Your task to perform on an android device: turn on priority inbox in the gmail app Image 0: 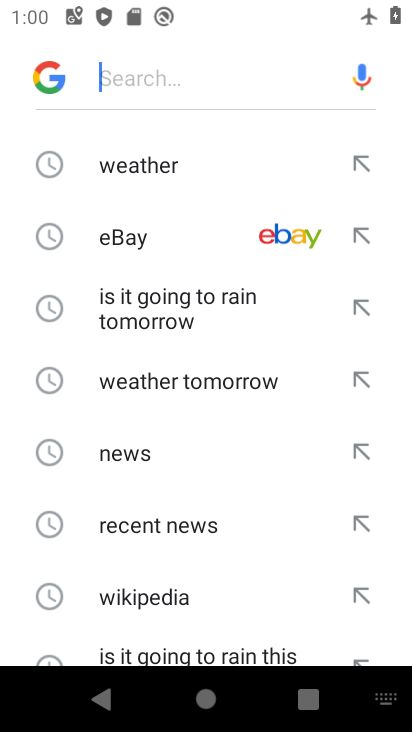
Step 0: press home button
Your task to perform on an android device: turn on priority inbox in the gmail app Image 1: 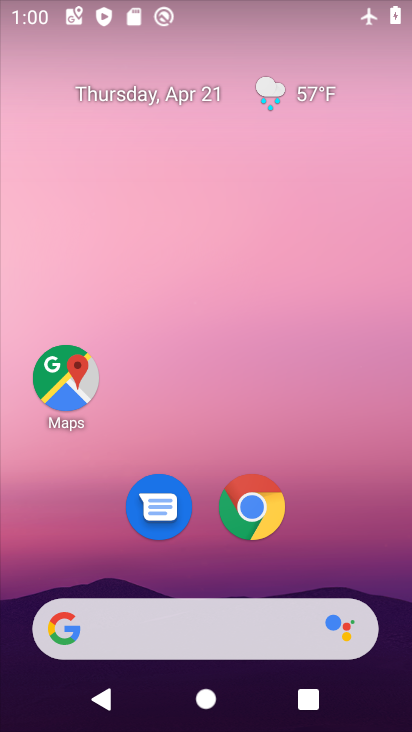
Step 1: drag from (216, 449) to (258, 32)
Your task to perform on an android device: turn on priority inbox in the gmail app Image 2: 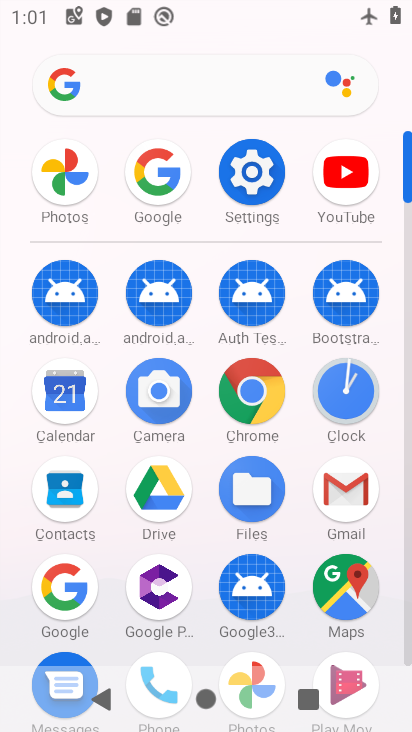
Step 2: click (344, 489)
Your task to perform on an android device: turn on priority inbox in the gmail app Image 3: 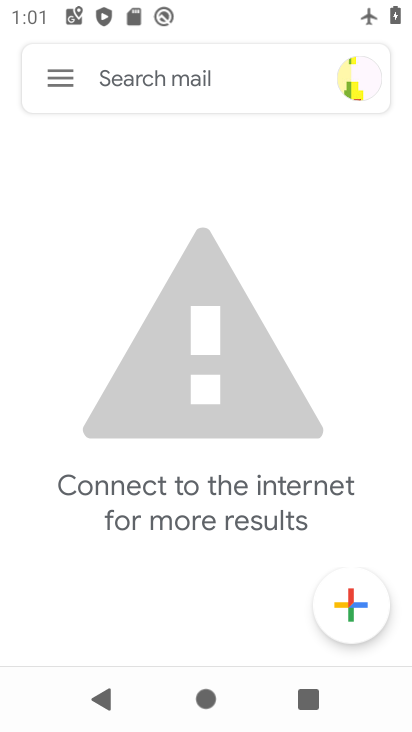
Step 3: click (62, 82)
Your task to perform on an android device: turn on priority inbox in the gmail app Image 4: 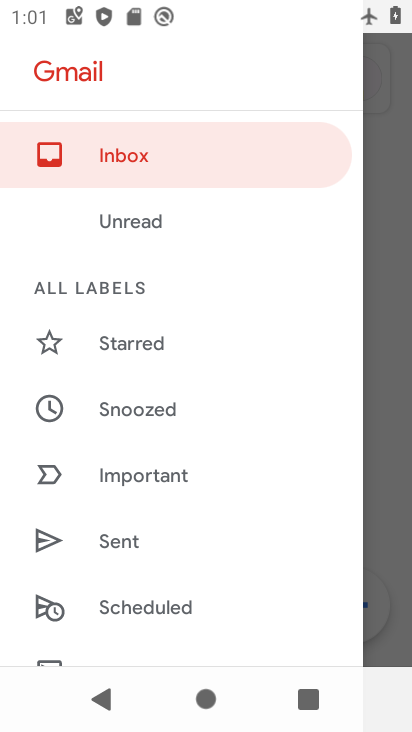
Step 4: drag from (171, 535) to (199, 344)
Your task to perform on an android device: turn on priority inbox in the gmail app Image 5: 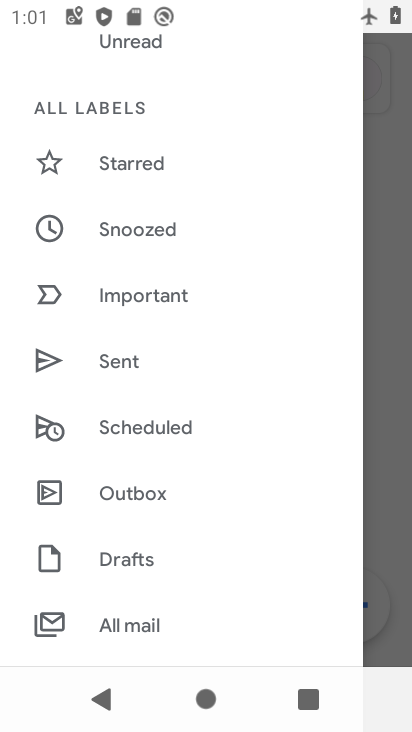
Step 5: drag from (162, 457) to (193, 380)
Your task to perform on an android device: turn on priority inbox in the gmail app Image 6: 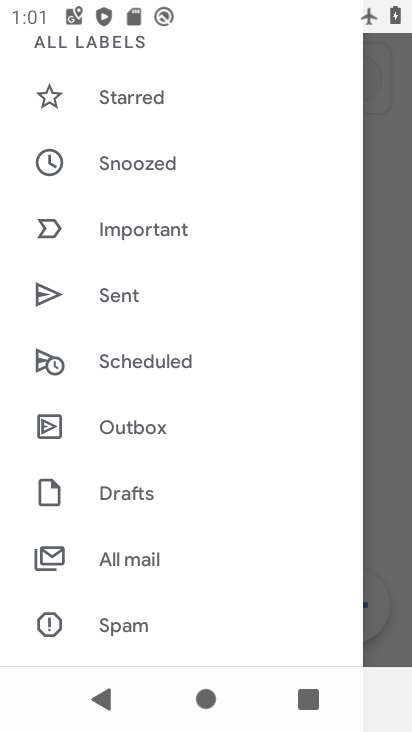
Step 6: drag from (166, 468) to (184, 379)
Your task to perform on an android device: turn on priority inbox in the gmail app Image 7: 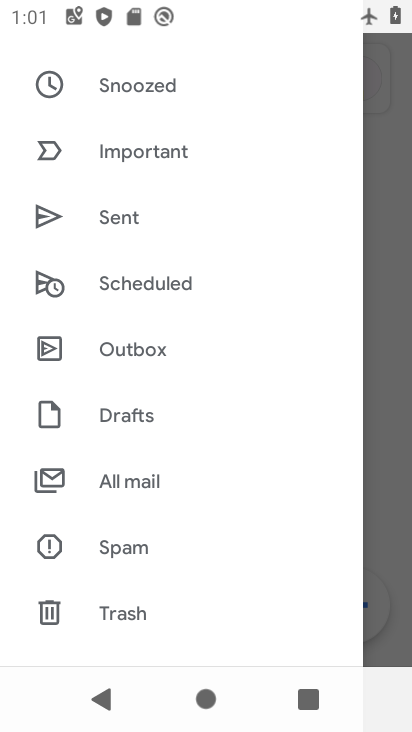
Step 7: drag from (177, 507) to (191, 406)
Your task to perform on an android device: turn on priority inbox in the gmail app Image 8: 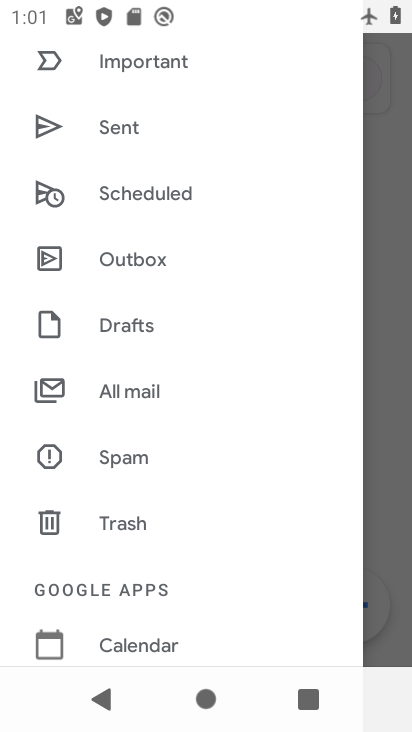
Step 8: drag from (156, 489) to (182, 401)
Your task to perform on an android device: turn on priority inbox in the gmail app Image 9: 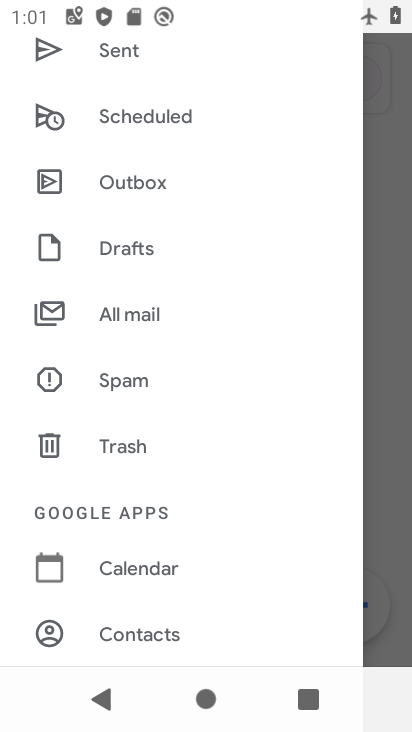
Step 9: drag from (170, 497) to (194, 418)
Your task to perform on an android device: turn on priority inbox in the gmail app Image 10: 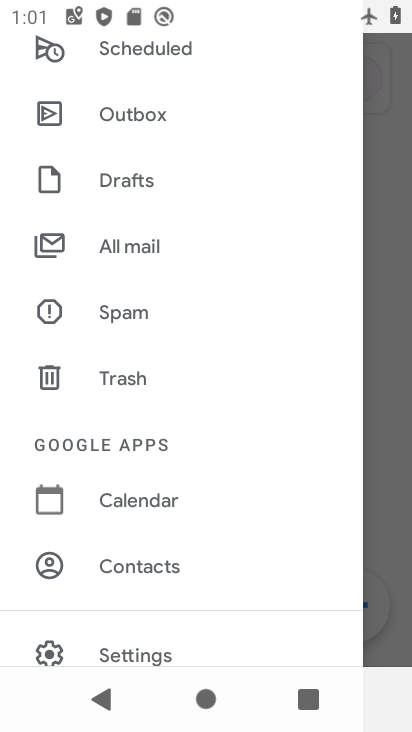
Step 10: drag from (195, 523) to (234, 415)
Your task to perform on an android device: turn on priority inbox in the gmail app Image 11: 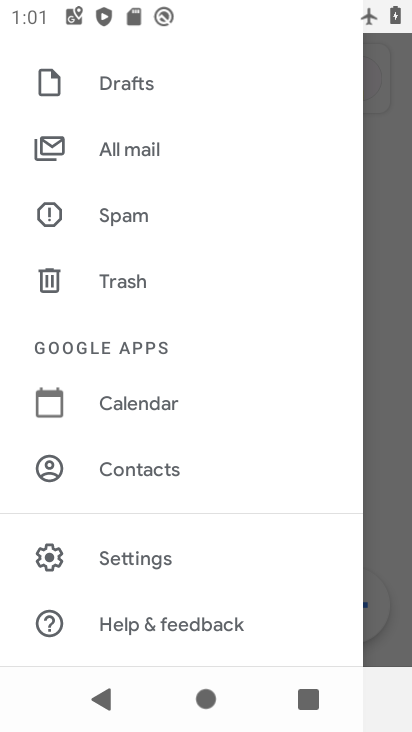
Step 11: click (150, 564)
Your task to perform on an android device: turn on priority inbox in the gmail app Image 12: 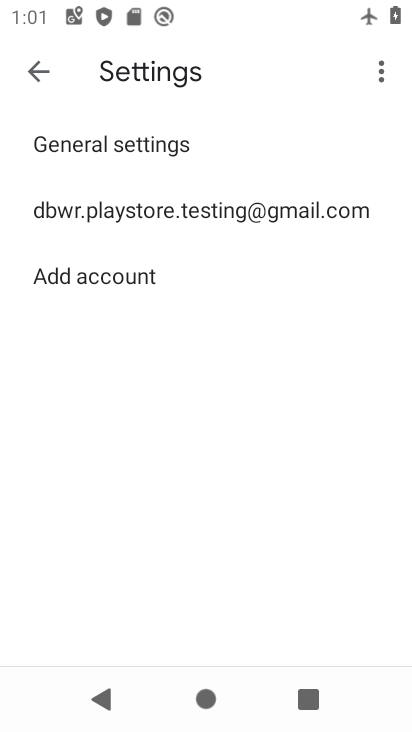
Step 12: click (282, 215)
Your task to perform on an android device: turn on priority inbox in the gmail app Image 13: 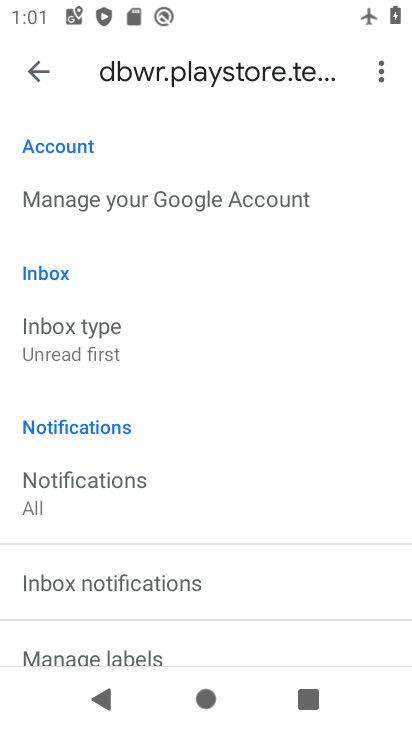
Step 13: click (98, 335)
Your task to perform on an android device: turn on priority inbox in the gmail app Image 14: 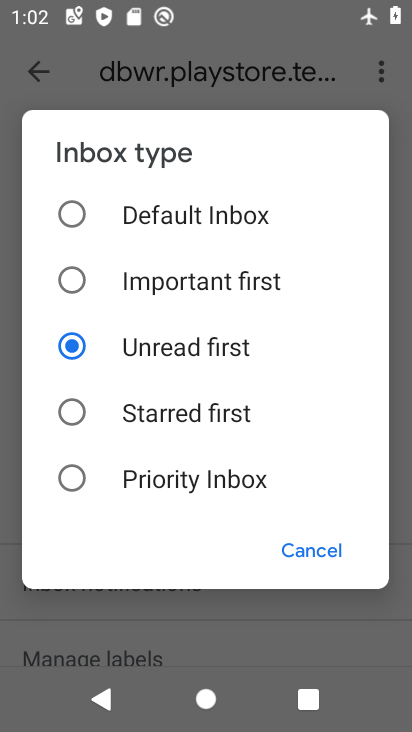
Step 14: click (67, 482)
Your task to perform on an android device: turn on priority inbox in the gmail app Image 15: 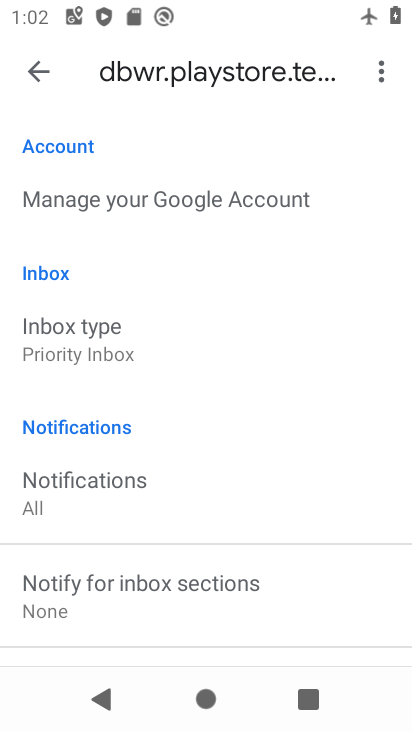
Step 15: task complete